Your task to perform on an android device: Show me popular games on the Play Store Image 0: 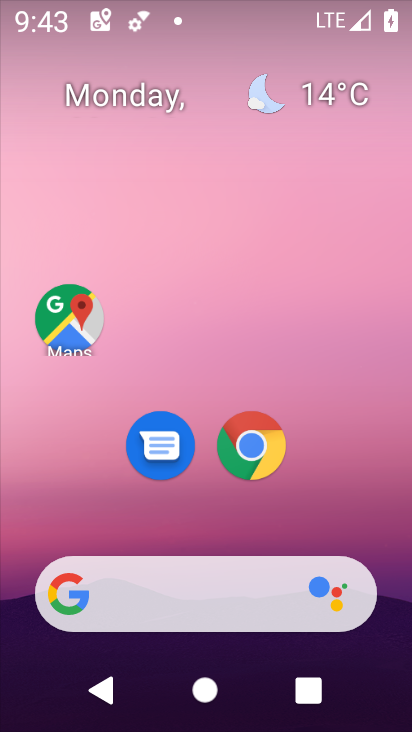
Step 0: drag from (215, 530) to (216, 50)
Your task to perform on an android device: Show me popular games on the Play Store Image 1: 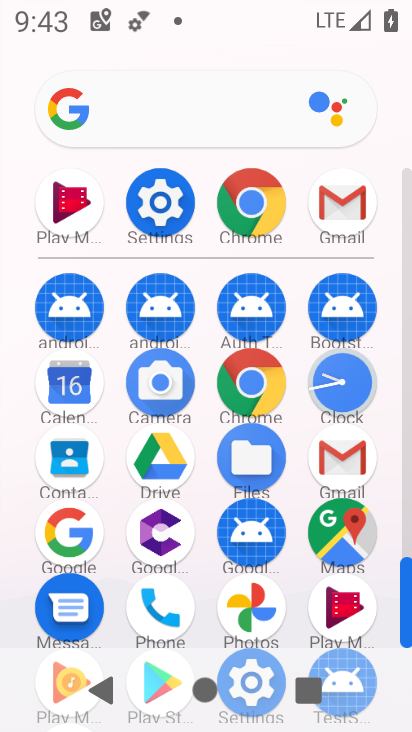
Step 1: drag from (203, 584) to (203, 122)
Your task to perform on an android device: Show me popular games on the Play Store Image 2: 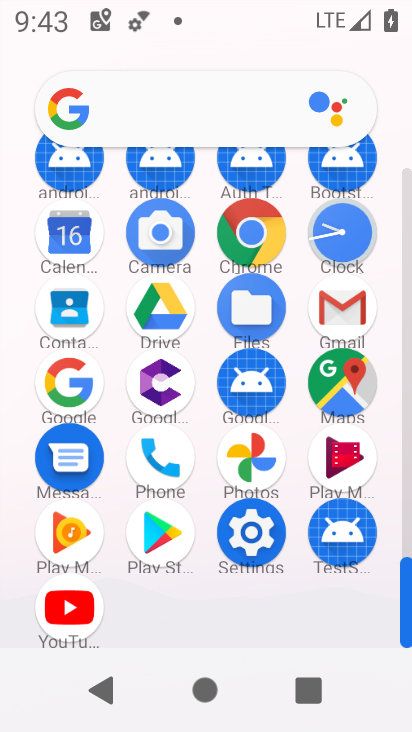
Step 2: click (154, 525)
Your task to perform on an android device: Show me popular games on the Play Store Image 3: 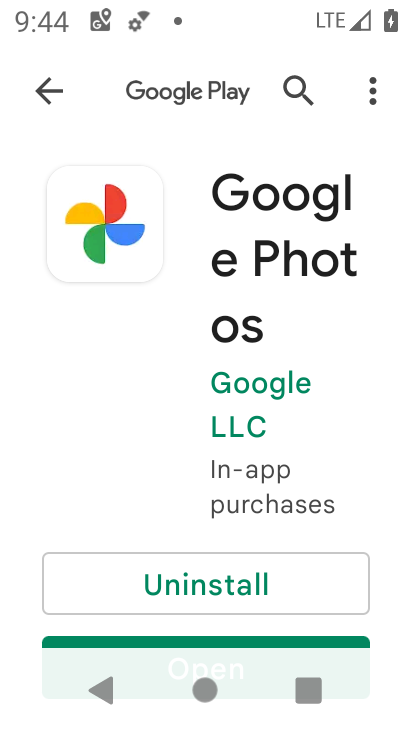
Step 3: drag from (156, 519) to (191, 102)
Your task to perform on an android device: Show me popular games on the Play Store Image 4: 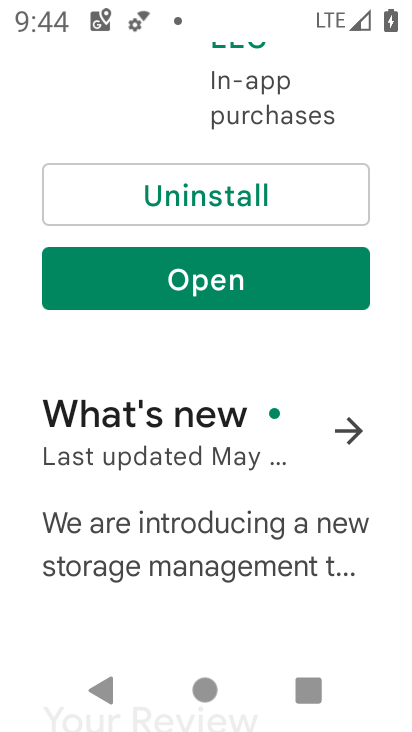
Step 4: drag from (178, 102) to (193, 584)
Your task to perform on an android device: Show me popular games on the Play Store Image 5: 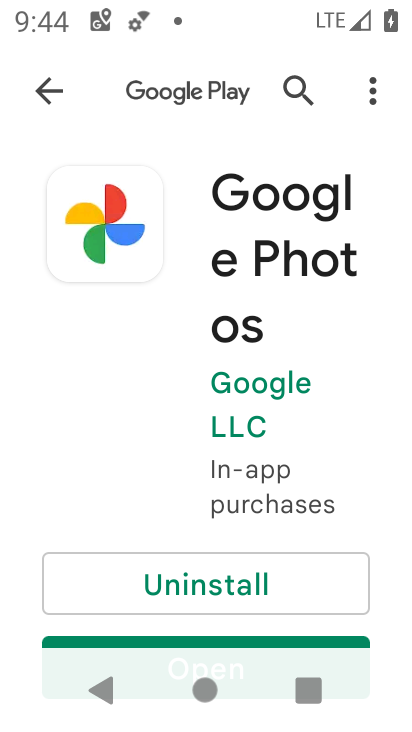
Step 5: drag from (174, 503) to (195, 297)
Your task to perform on an android device: Show me popular games on the Play Store Image 6: 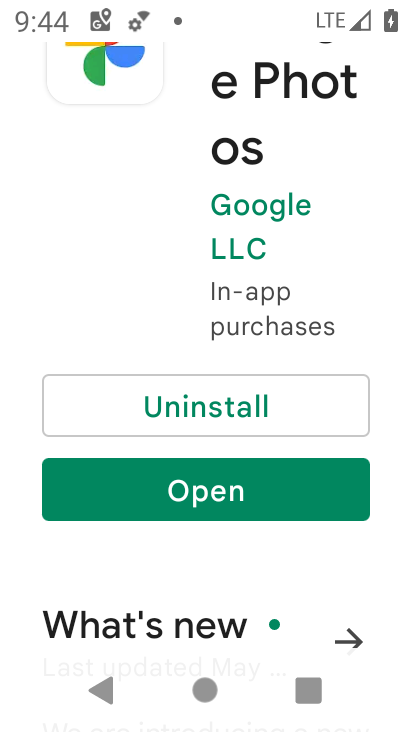
Step 6: drag from (115, 143) to (139, 491)
Your task to perform on an android device: Show me popular games on the Play Store Image 7: 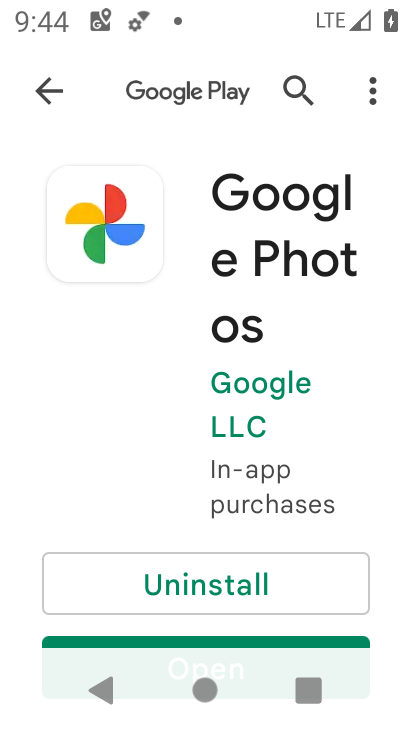
Step 7: click (57, 98)
Your task to perform on an android device: Show me popular games on the Play Store Image 8: 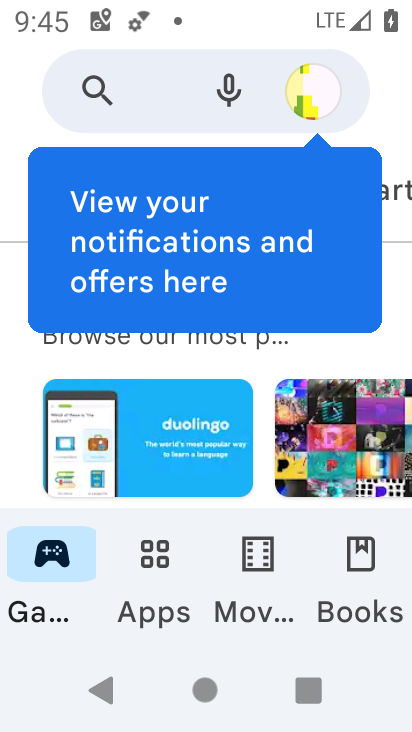
Step 8: drag from (166, 458) to (179, 258)
Your task to perform on an android device: Show me popular games on the Play Store Image 9: 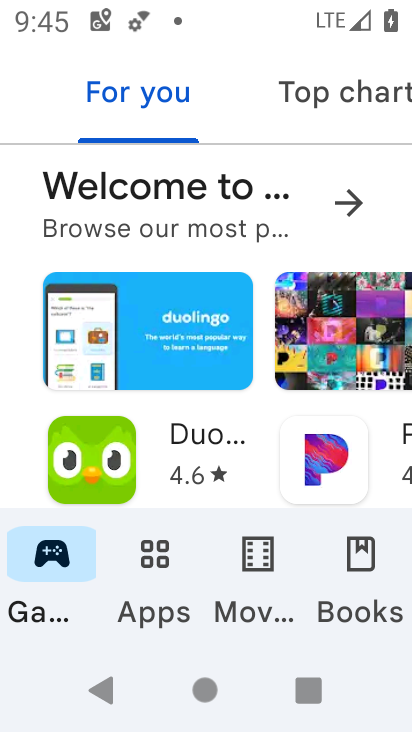
Step 9: drag from (233, 481) to (239, 192)
Your task to perform on an android device: Show me popular games on the Play Store Image 10: 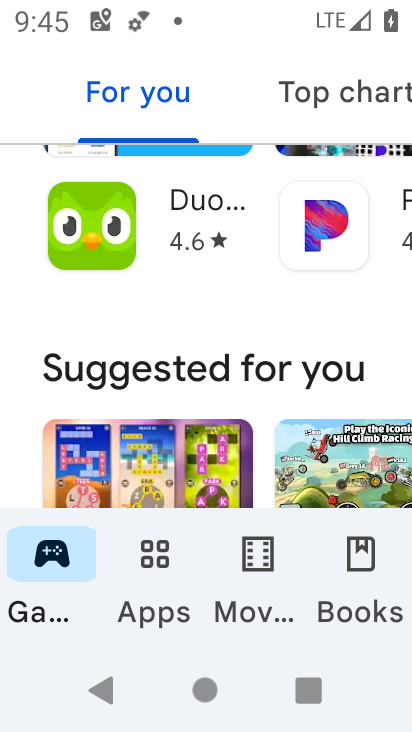
Step 10: drag from (217, 425) to (235, 146)
Your task to perform on an android device: Show me popular games on the Play Store Image 11: 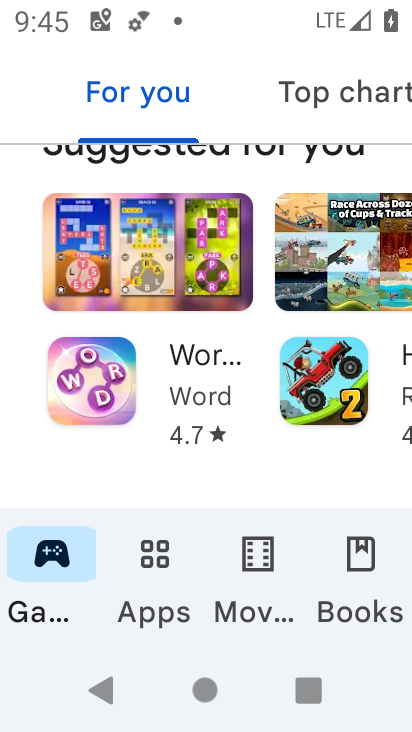
Step 11: drag from (209, 440) to (216, 143)
Your task to perform on an android device: Show me popular games on the Play Store Image 12: 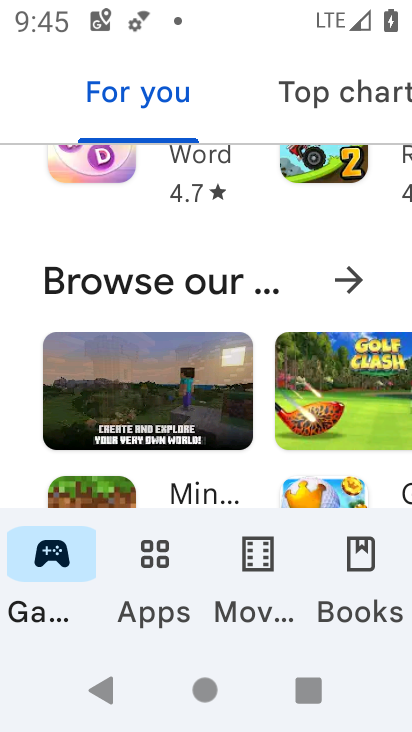
Step 12: click (356, 271)
Your task to perform on an android device: Show me popular games on the Play Store Image 13: 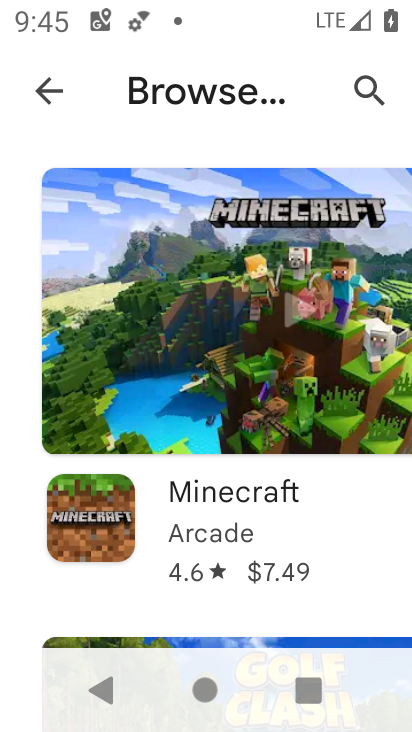
Step 13: task complete